Your task to perform on an android device: check data usage Image 0: 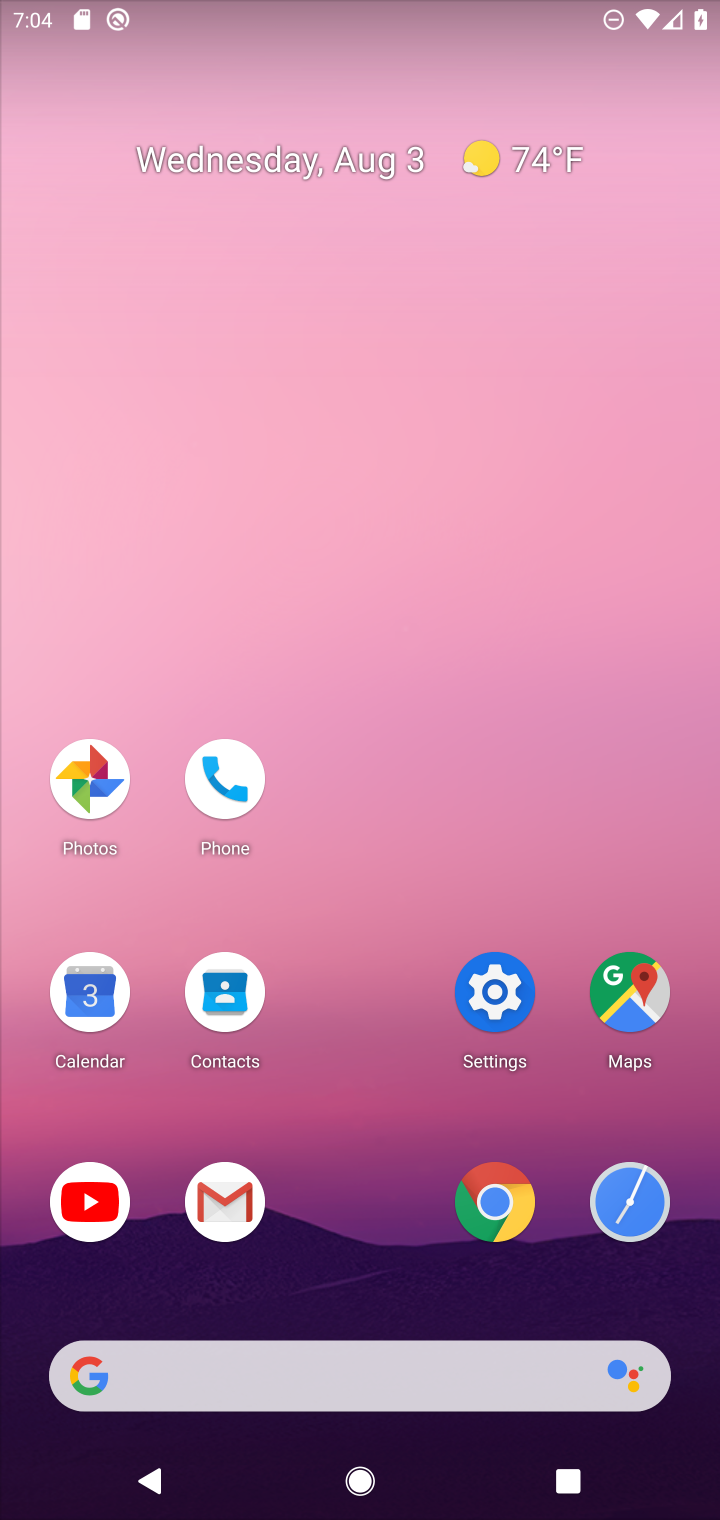
Step 0: click (493, 986)
Your task to perform on an android device: check data usage Image 1: 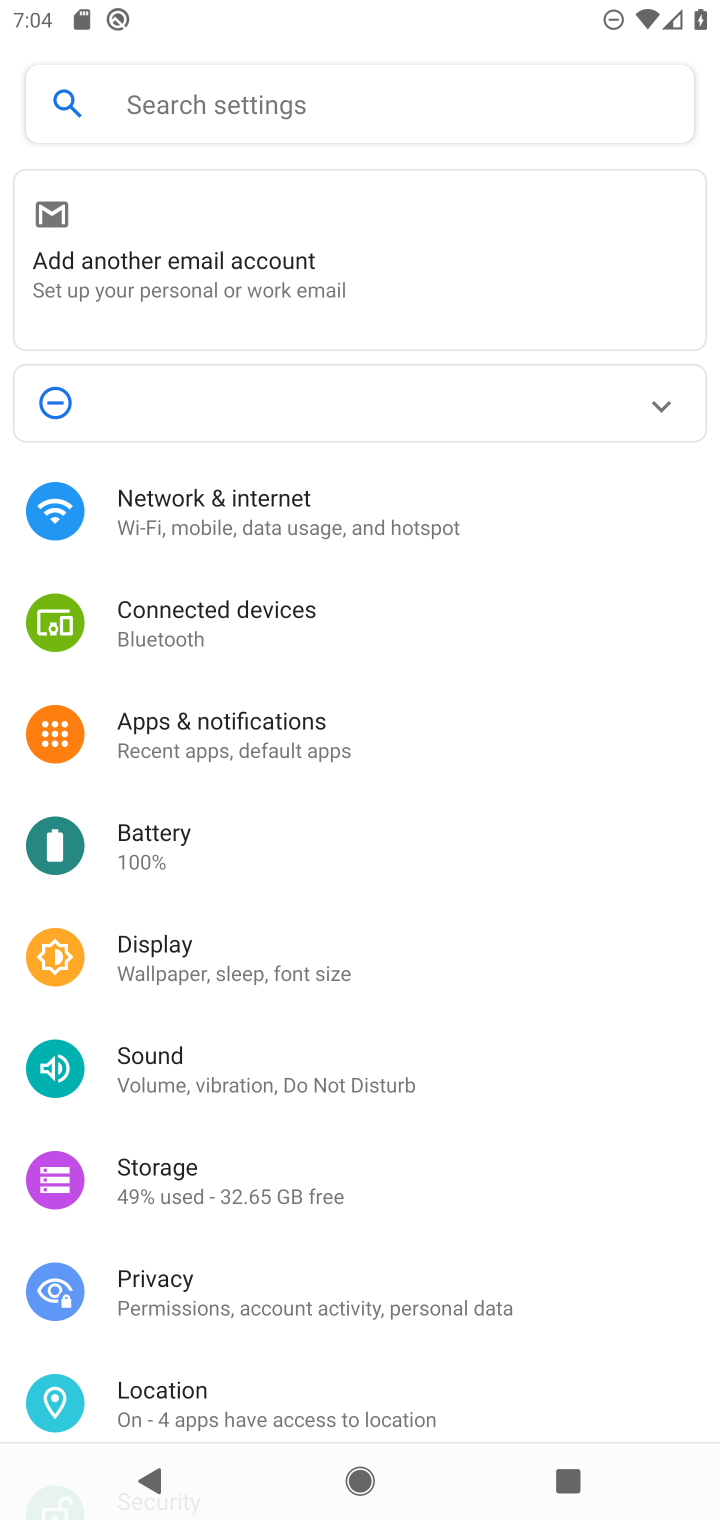
Step 1: click (241, 491)
Your task to perform on an android device: check data usage Image 2: 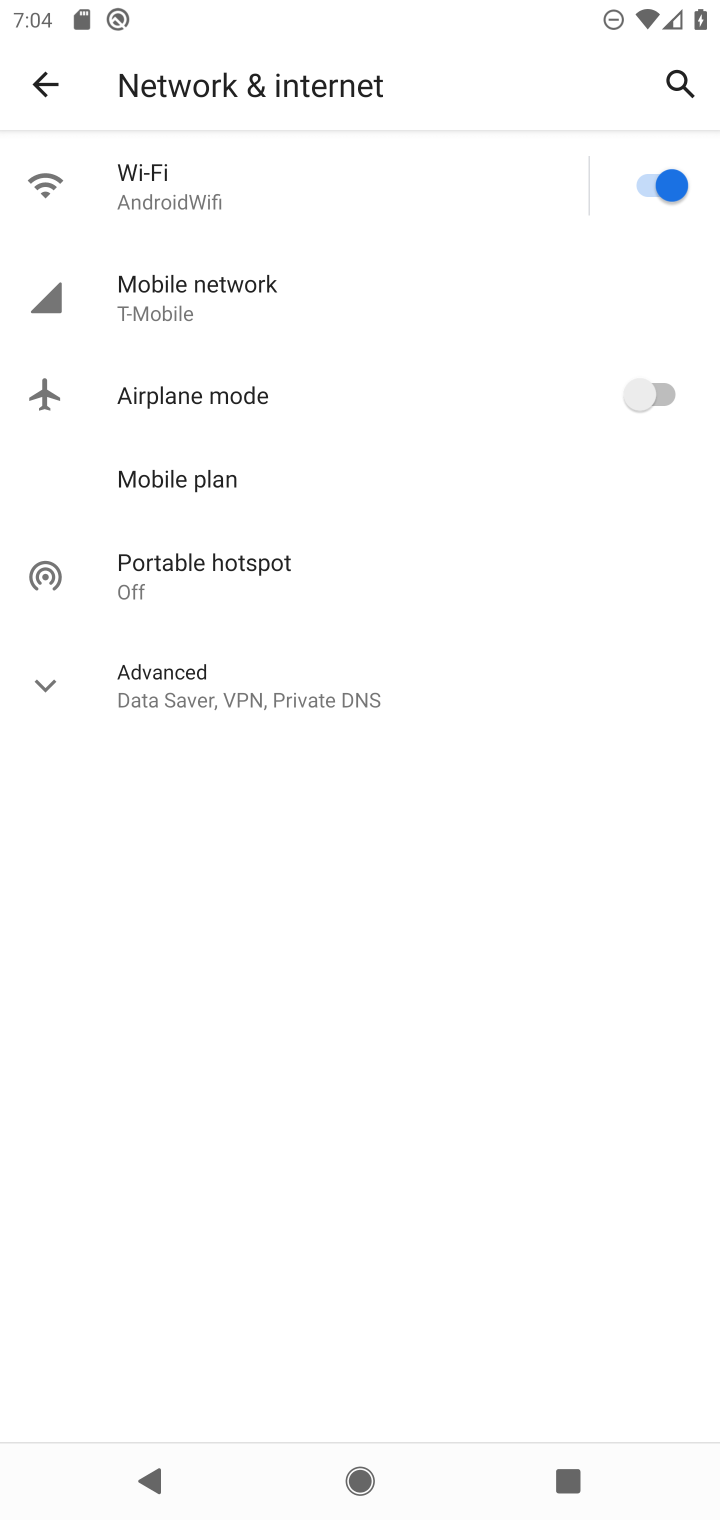
Step 2: click (213, 287)
Your task to perform on an android device: check data usage Image 3: 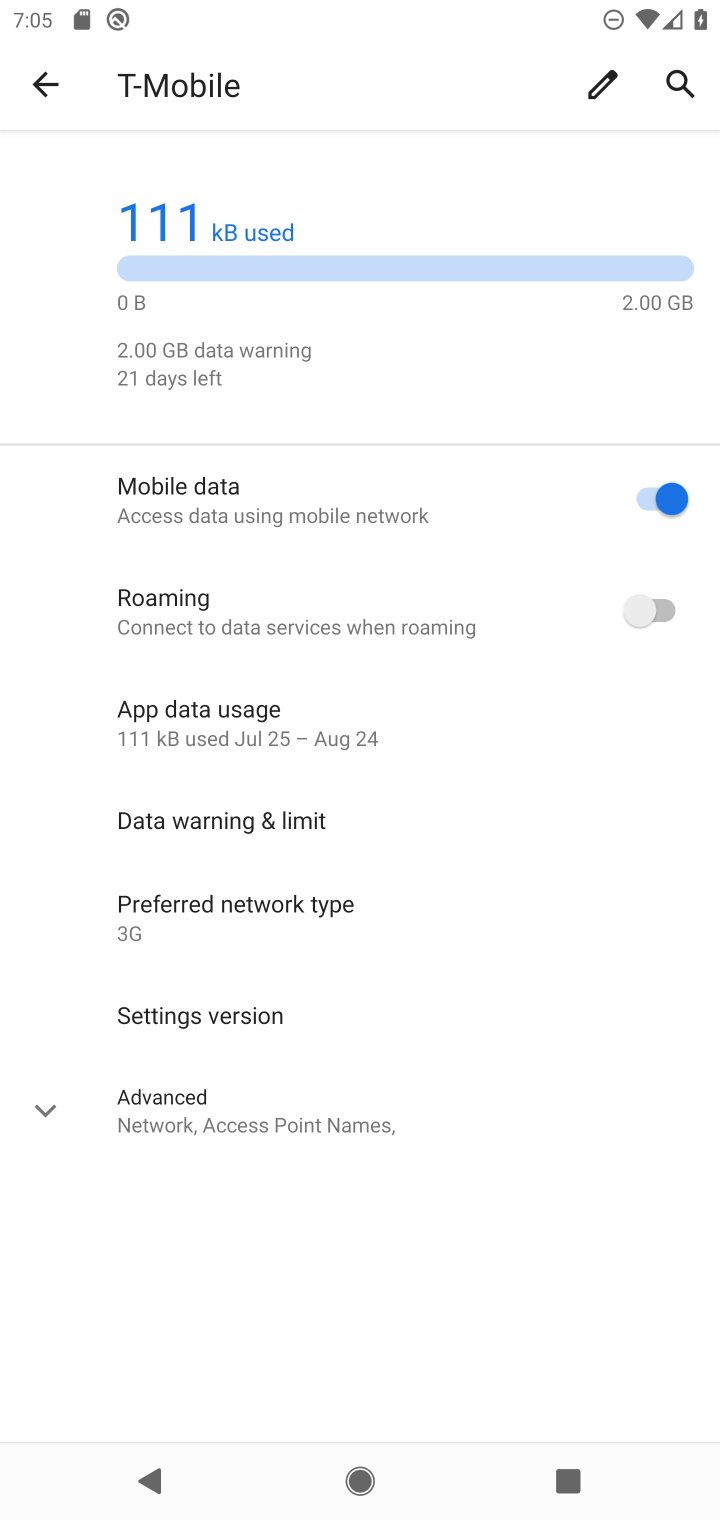
Step 3: task complete